Your task to perform on an android device: Show me popular videos on Youtube Image 0: 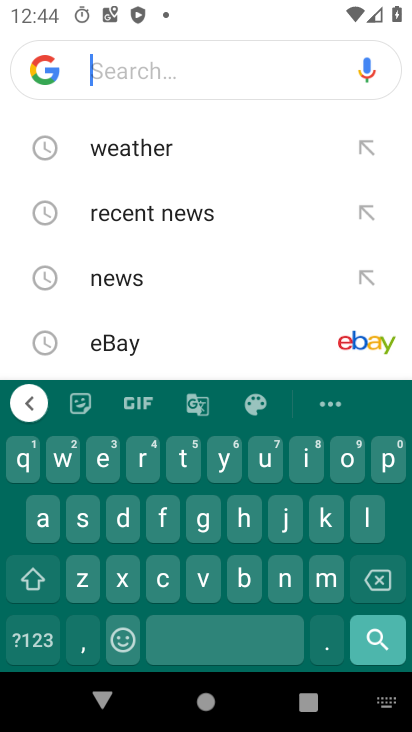
Step 0: press home button
Your task to perform on an android device: Show me popular videos on Youtube Image 1: 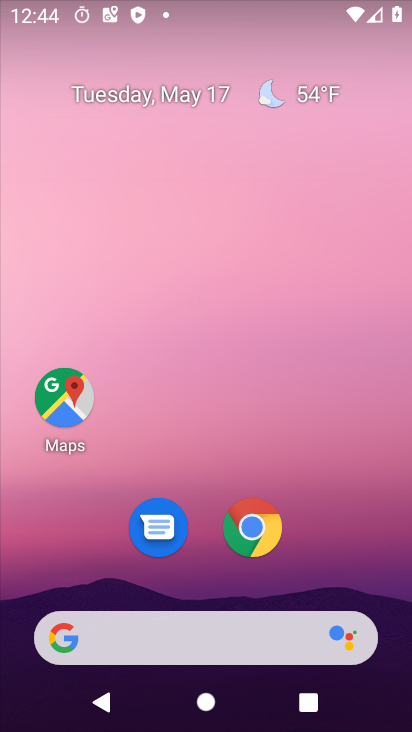
Step 1: drag from (231, 662) to (204, 241)
Your task to perform on an android device: Show me popular videos on Youtube Image 2: 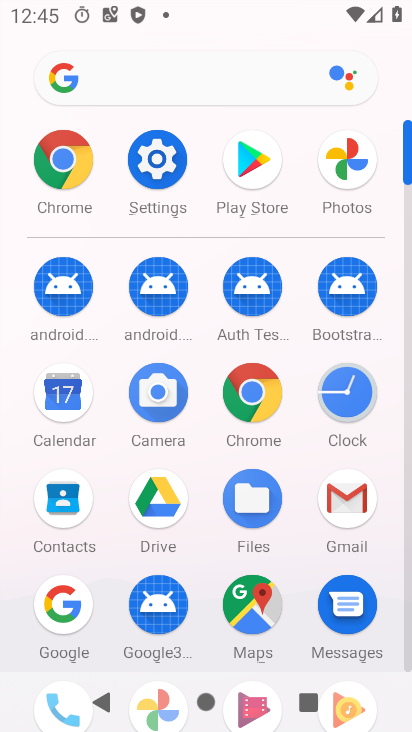
Step 2: drag from (112, 549) to (176, 325)
Your task to perform on an android device: Show me popular videos on Youtube Image 3: 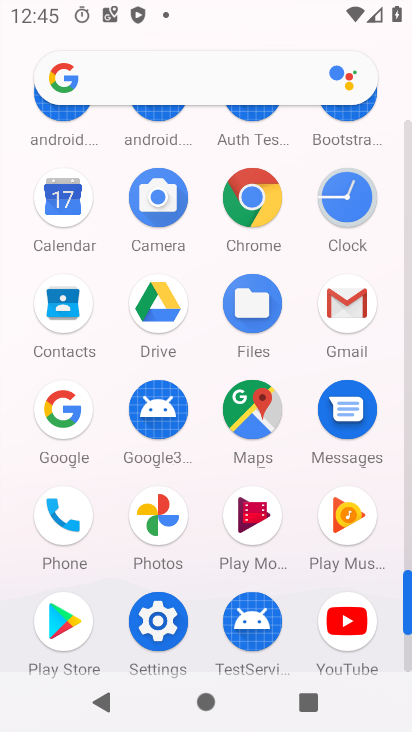
Step 3: click (338, 613)
Your task to perform on an android device: Show me popular videos on Youtube Image 4: 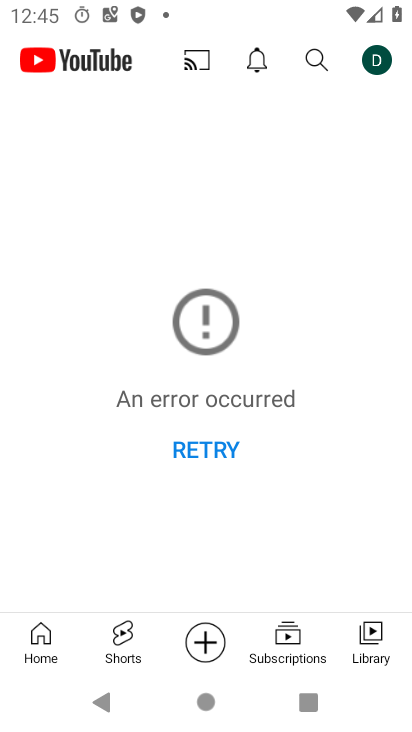
Step 4: click (313, 54)
Your task to perform on an android device: Show me popular videos on Youtube Image 5: 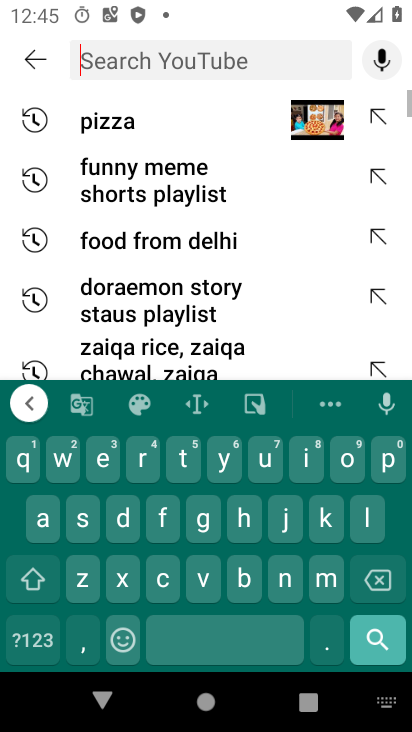
Step 5: click (388, 474)
Your task to perform on an android device: Show me popular videos on Youtube Image 6: 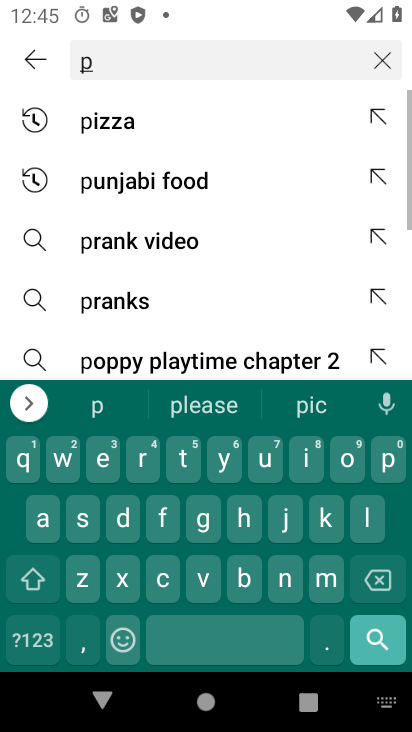
Step 6: click (352, 467)
Your task to perform on an android device: Show me popular videos on Youtube Image 7: 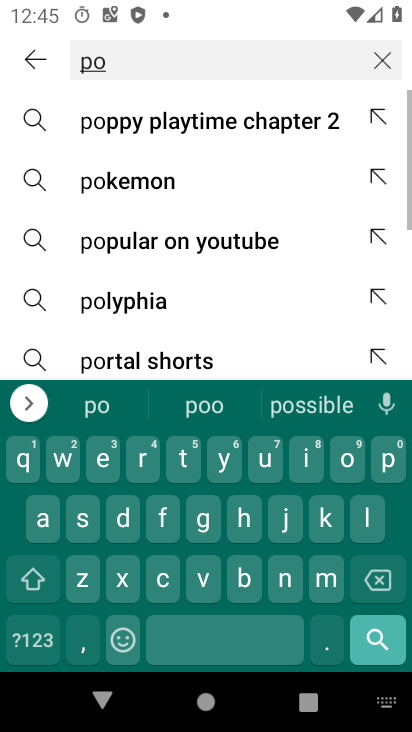
Step 7: click (382, 454)
Your task to perform on an android device: Show me popular videos on Youtube Image 8: 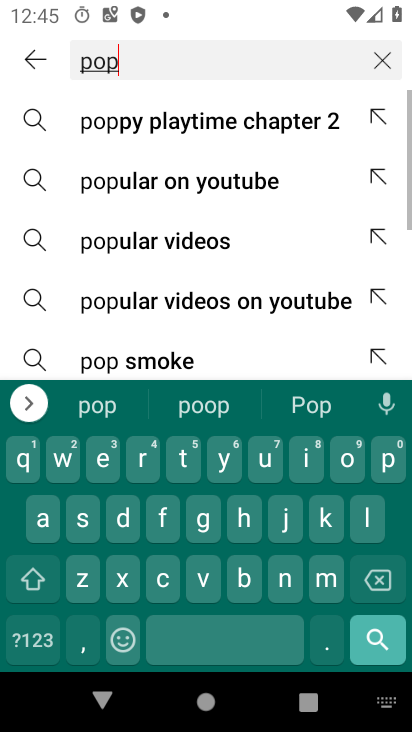
Step 8: click (277, 460)
Your task to perform on an android device: Show me popular videos on Youtube Image 9: 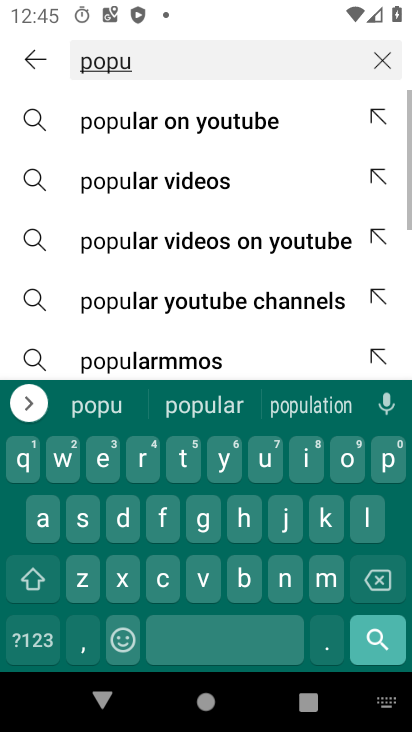
Step 9: click (215, 403)
Your task to perform on an android device: Show me popular videos on Youtube Image 10: 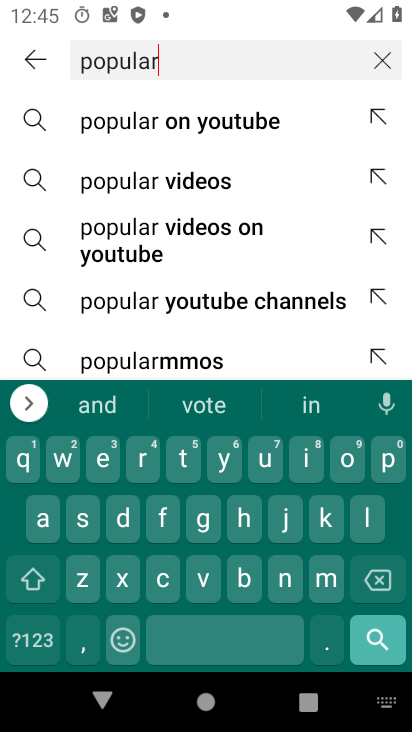
Step 10: click (203, 580)
Your task to perform on an android device: Show me popular videos on Youtube Image 11: 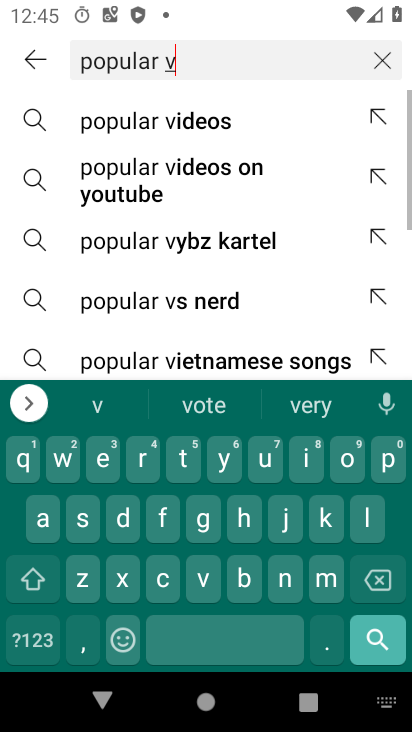
Step 11: click (304, 466)
Your task to perform on an android device: Show me popular videos on Youtube Image 12: 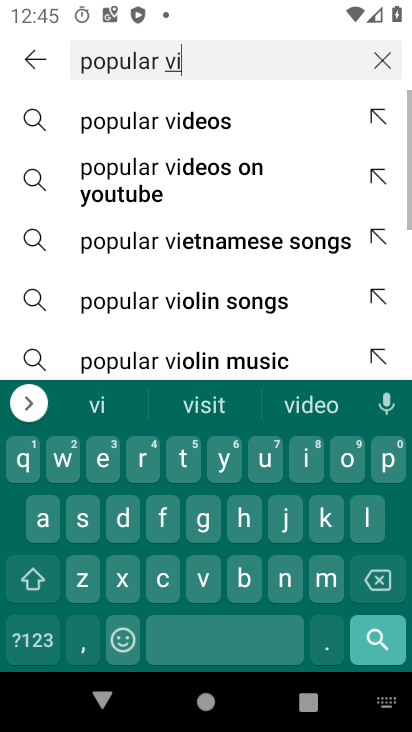
Step 12: click (174, 140)
Your task to perform on an android device: Show me popular videos on Youtube Image 13: 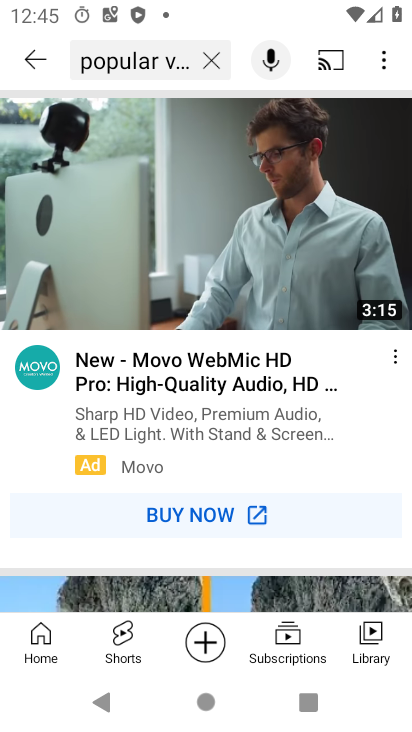
Step 13: task complete